Your task to perform on an android device: Show me recent news Image 0: 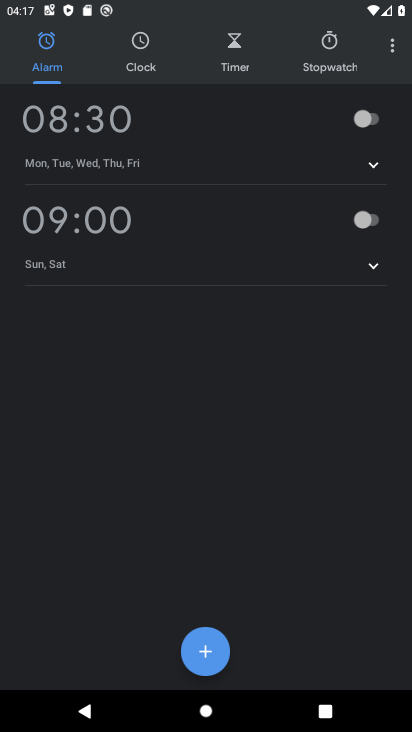
Step 0: press home button
Your task to perform on an android device: Show me recent news Image 1: 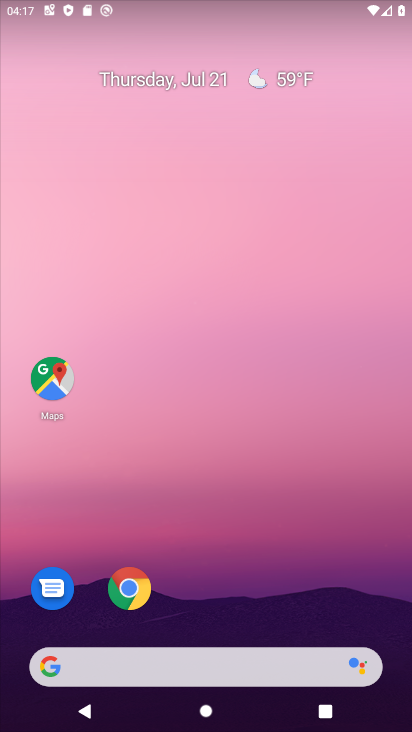
Step 1: drag from (226, 599) to (249, 141)
Your task to perform on an android device: Show me recent news Image 2: 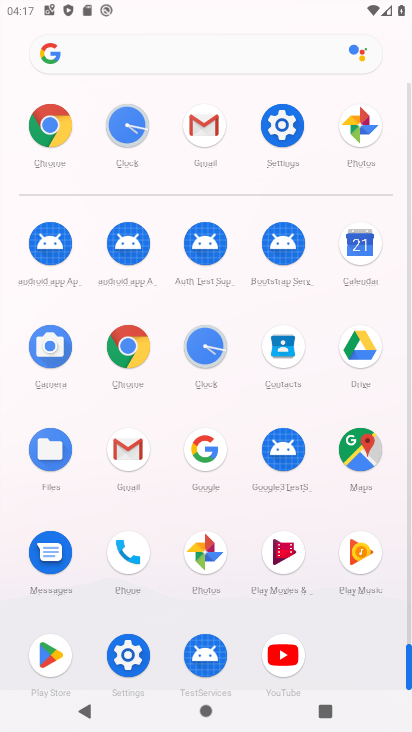
Step 2: click (139, 44)
Your task to perform on an android device: Show me recent news Image 3: 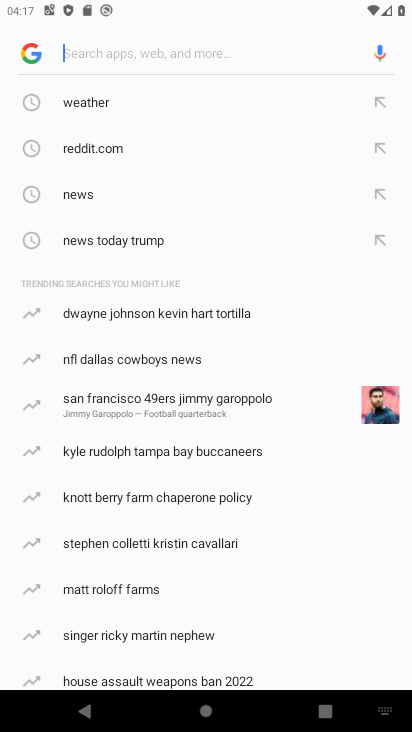
Step 3: type "recent news"
Your task to perform on an android device: Show me recent news Image 4: 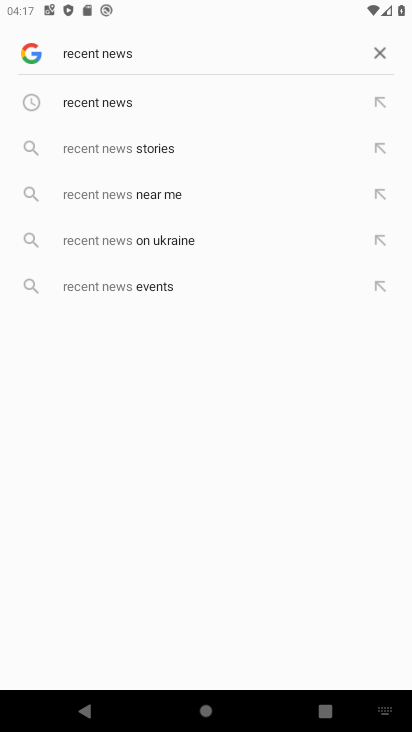
Step 4: click (150, 106)
Your task to perform on an android device: Show me recent news Image 5: 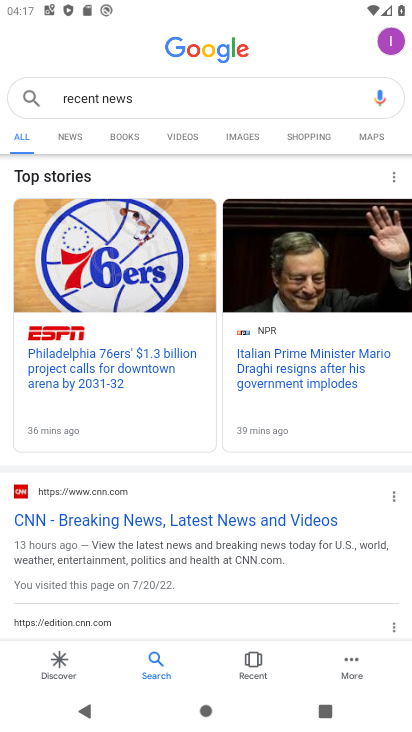
Step 5: task complete